Your task to perform on an android device: Open my contact list Image 0: 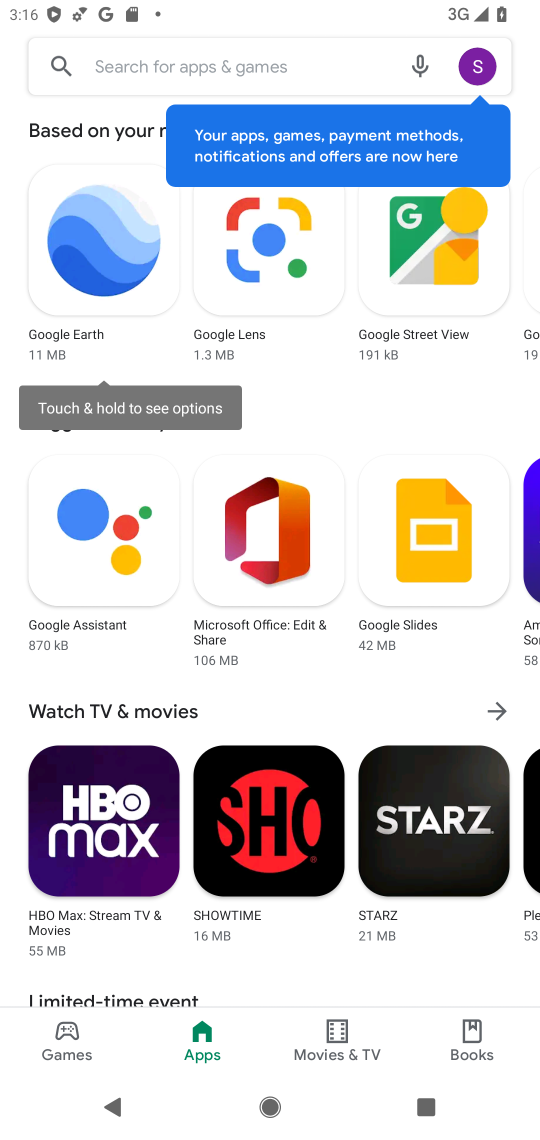
Step 0: press home button
Your task to perform on an android device: Open my contact list Image 1: 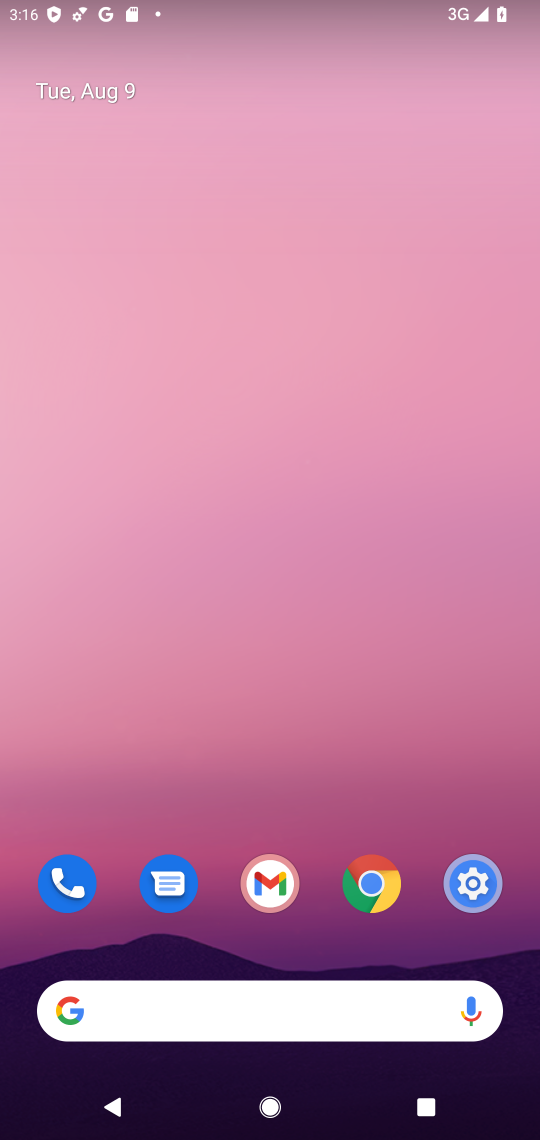
Step 1: drag from (416, 963) to (416, 163)
Your task to perform on an android device: Open my contact list Image 2: 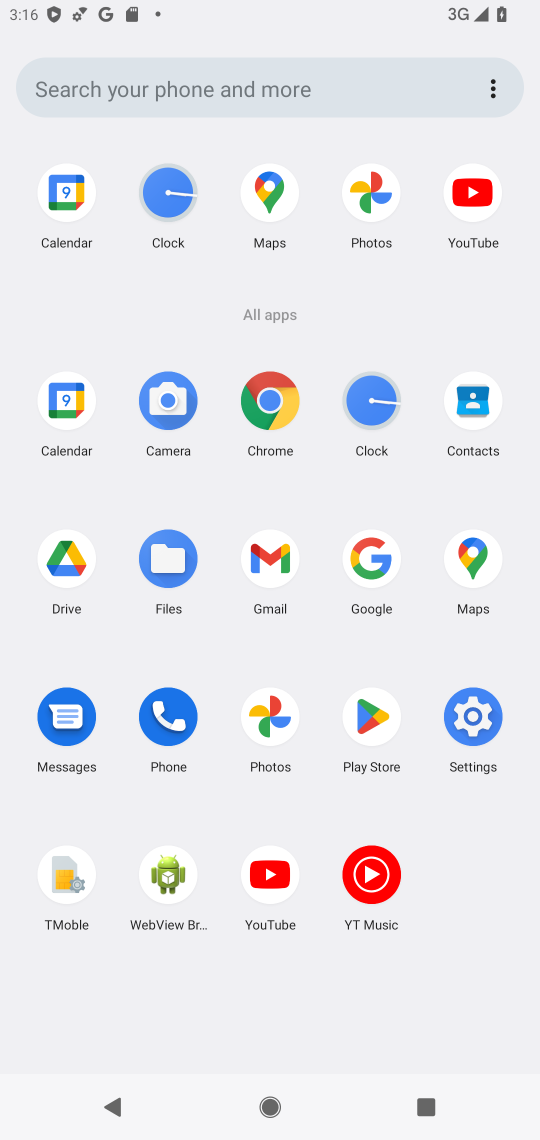
Step 2: click (472, 404)
Your task to perform on an android device: Open my contact list Image 3: 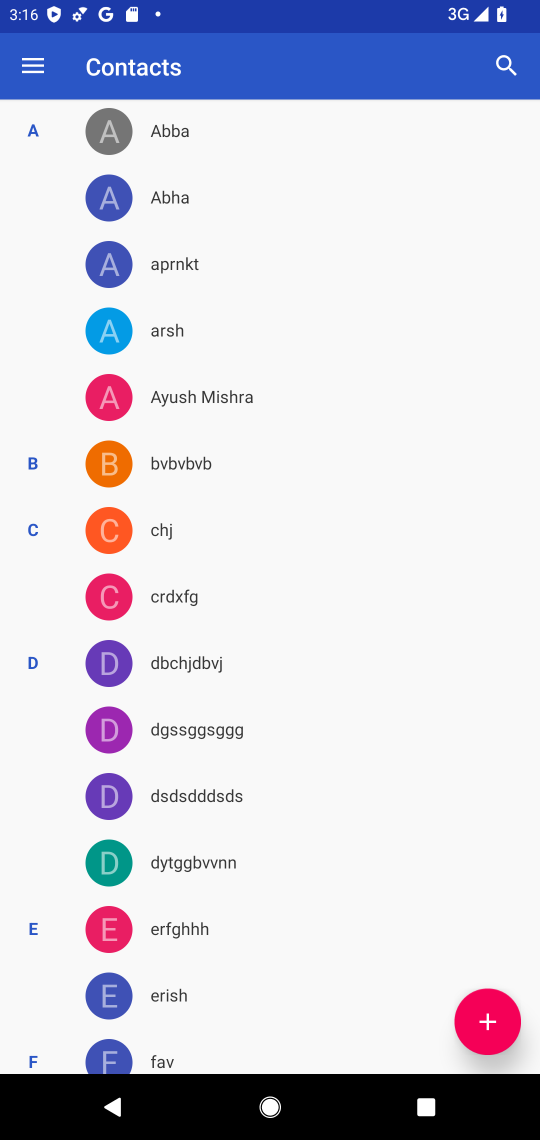
Step 3: task complete